Your task to perform on an android device: change text size in settings app Image 0: 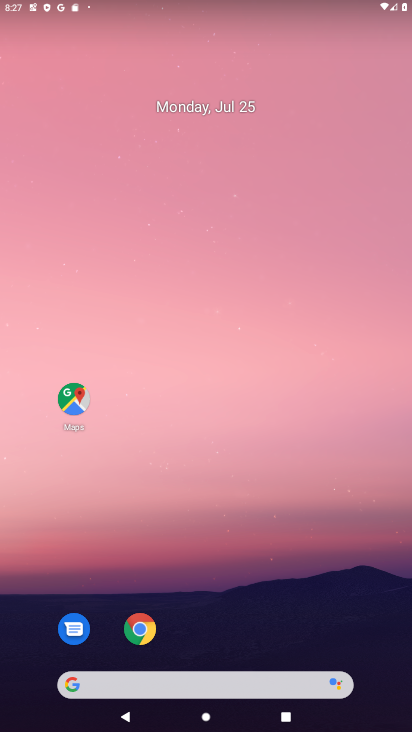
Step 0: drag from (248, 659) to (222, 6)
Your task to perform on an android device: change text size in settings app Image 1: 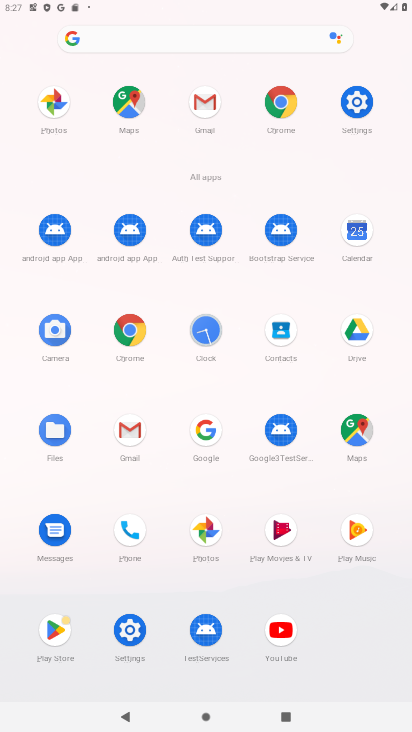
Step 1: click (358, 103)
Your task to perform on an android device: change text size in settings app Image 2: 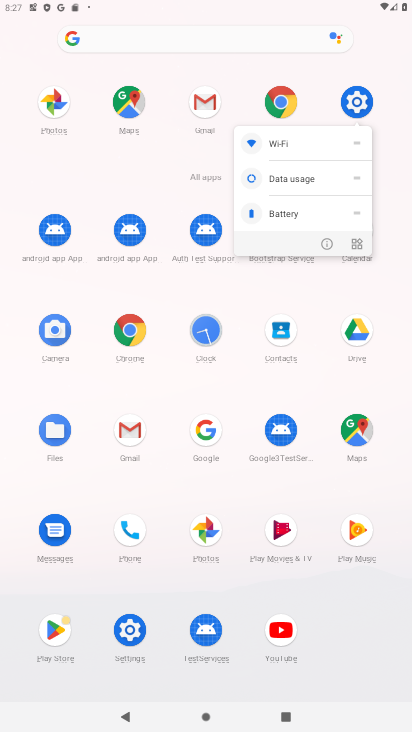
Step 2: click (358, 103)
Your task to perform on an android device: change text size in settings app Image 3: 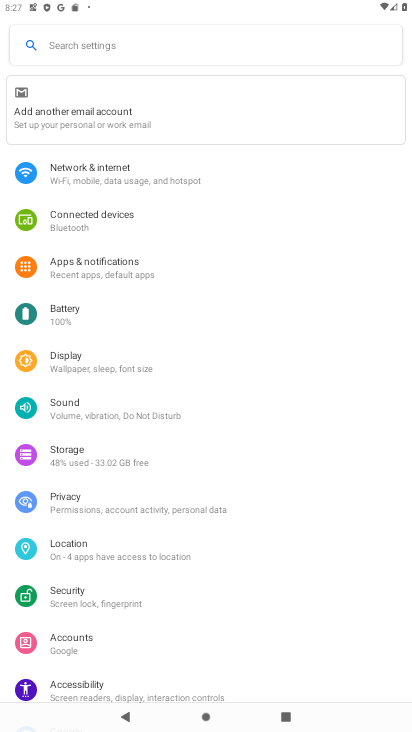
Step 3: drag from (149, 625) to (148, 377)
Your task to perform on an android device: change text size in settings app Image 4: 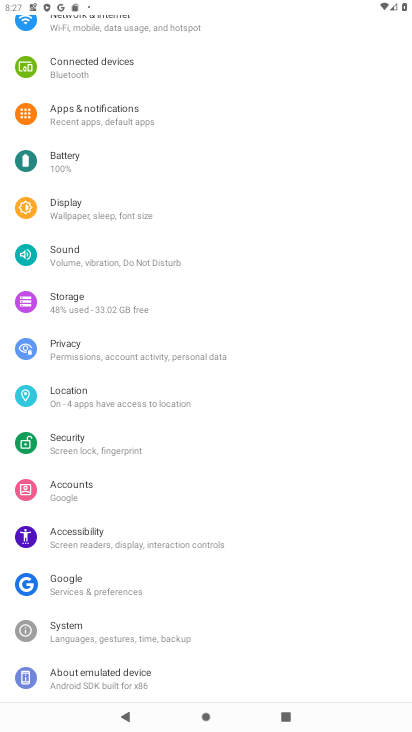
Step 4: click (62, 540)
Your task to perform on an android device: change text size in settings app Image 5: 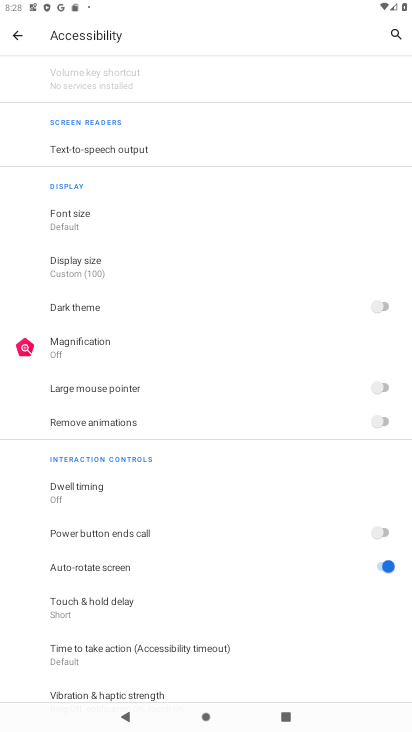
Step 5: click (72, 231)
Your task to perform on an android device: change text size in settings app Image 6: 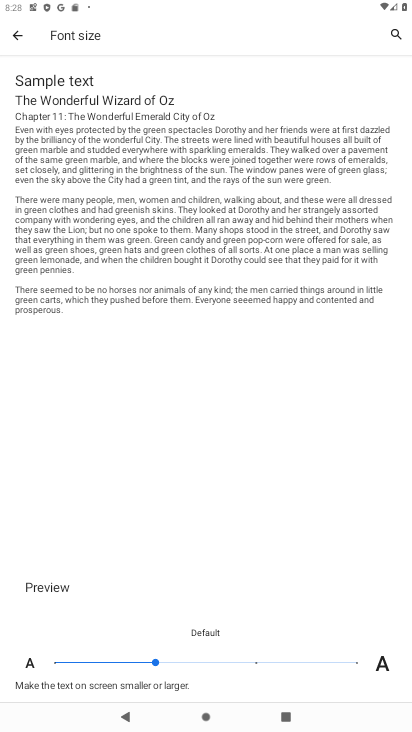
Step 6: click (356, 670)
Your task to perform on an android device: change text size in settings app Image 7: 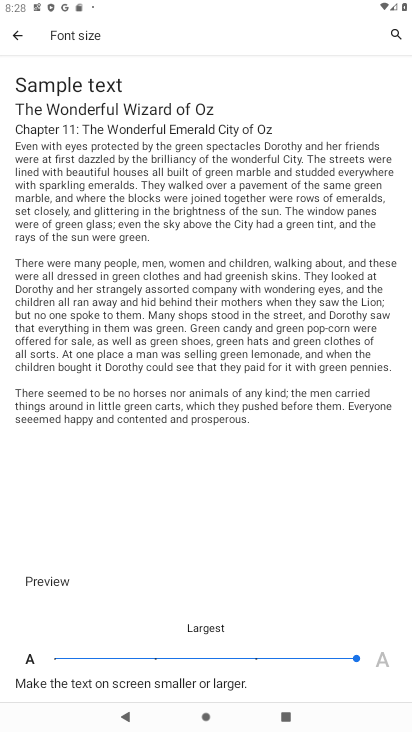
Step 7: task complete